Your task to perform on an android device: Open Google Chrome Image 0: 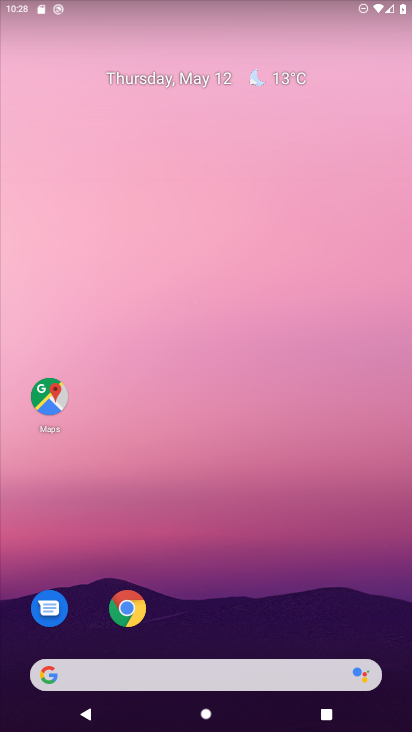
Step 0: click (131, 607)
Your task to perform on an android device: Open Google Chrome Image 1: 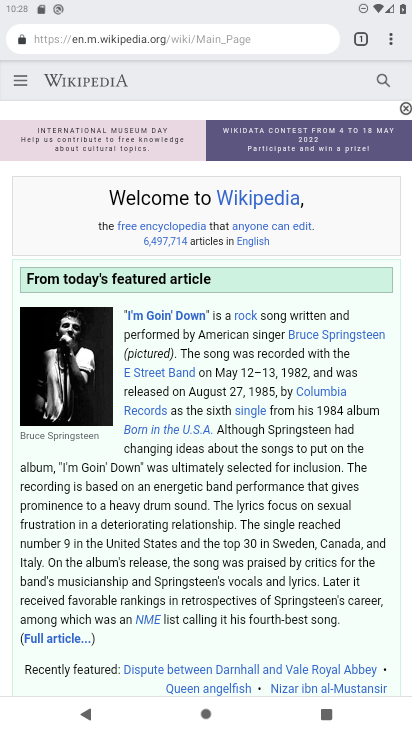
Step 1: click (381, 36)
Your task to perform on an android device: Open Google Chrome Image 2: 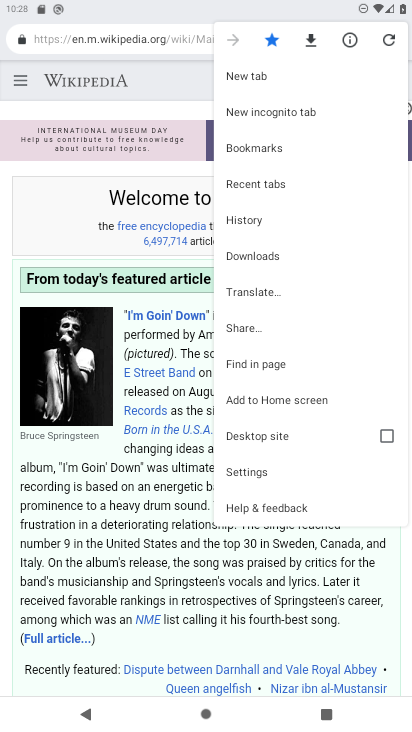
Step 2: task complete